Your task to perform on an android device: What's on my calendar tomorrow? Image 0: 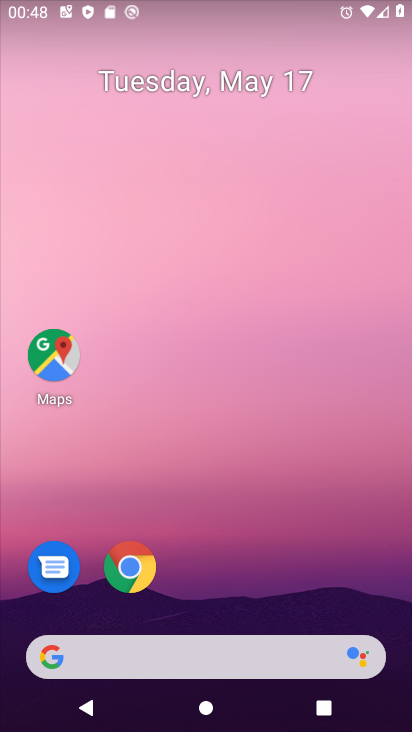
Step 0: drag from (270, 561) to (197, 171)
Your task to perform on an android device: What's on my calendar tomorrow? Image 1: 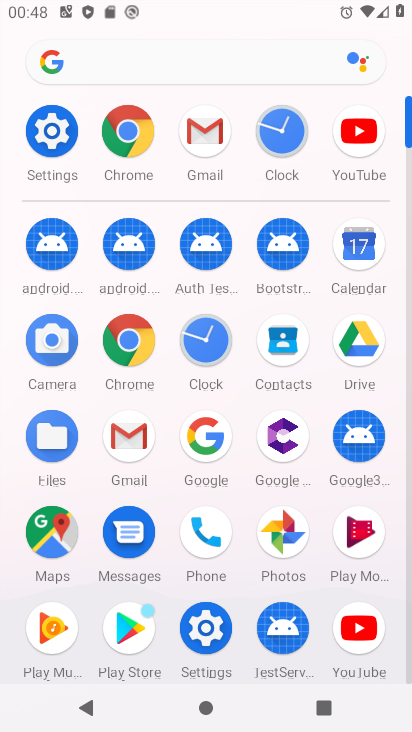
Step 1: click (359, 251)
Your task to perform on an android device: What's on my calendar tomorrow? Image 2: 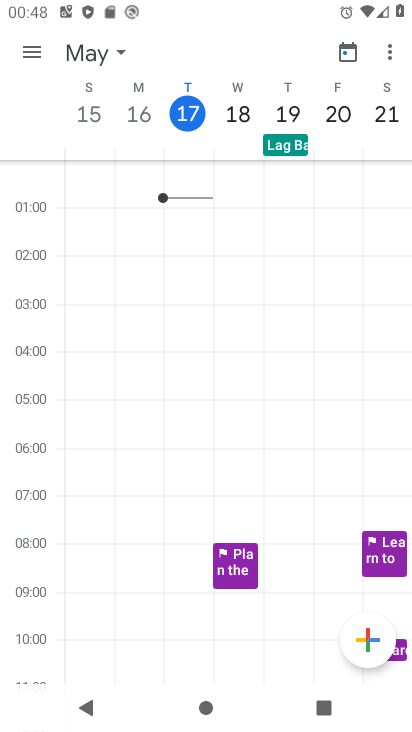
Step 2: click (180, 115)
Your task to perform on an android device: What's on my calendar tomorrow? Image 3: 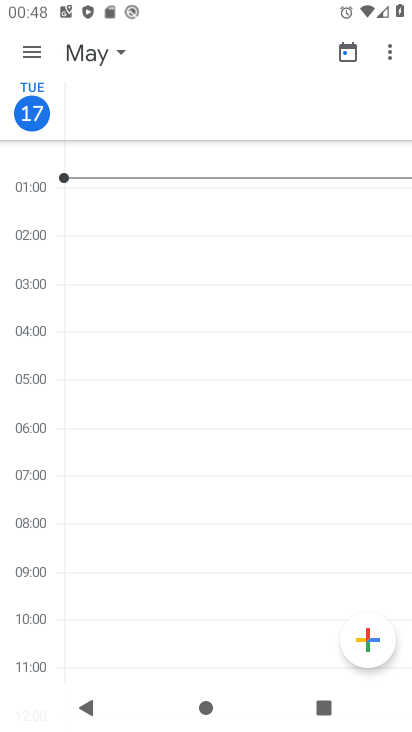
Step 3: task complete